Your task to perform on an android device: Go to Yahoo.com Image 0: 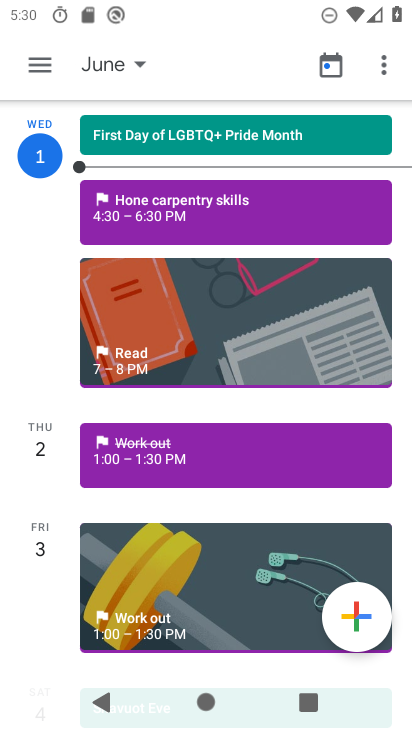
Step 0: press home button
Your task to perform on an android device: Go to Yahoo.com Image 1: 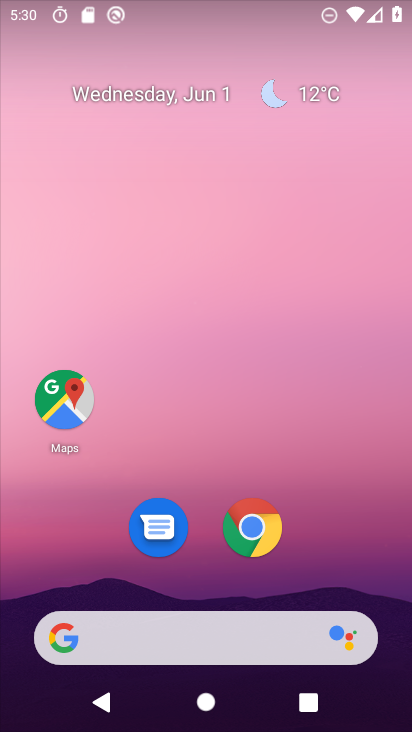
Step 1: click (265, 529)
Your task to perform on an android device: Go to Yahoo.com Image 2: 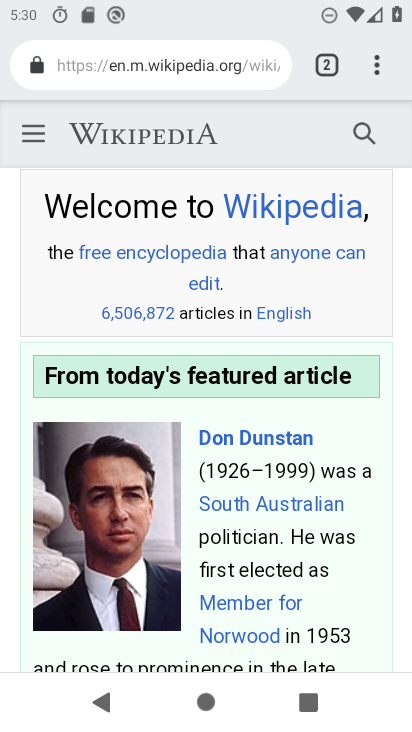
Step 2: click (316, 74)
Your task to perform on an android device: Go to Yahoo.com Image 3: 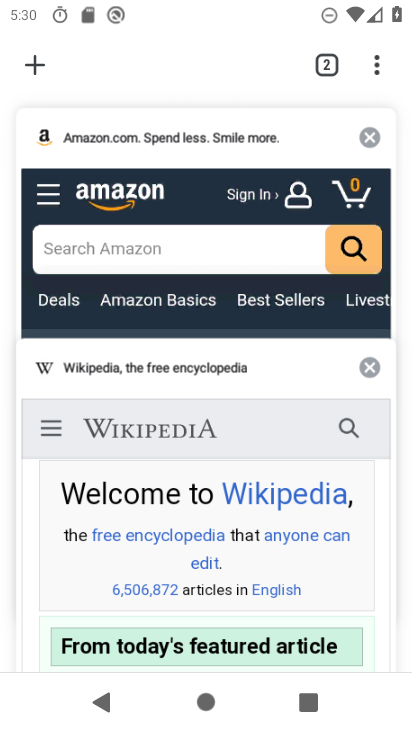
Step 3: click (51, 61)
Your task to perform on an android device: Go to Yahoo.com Image 4: 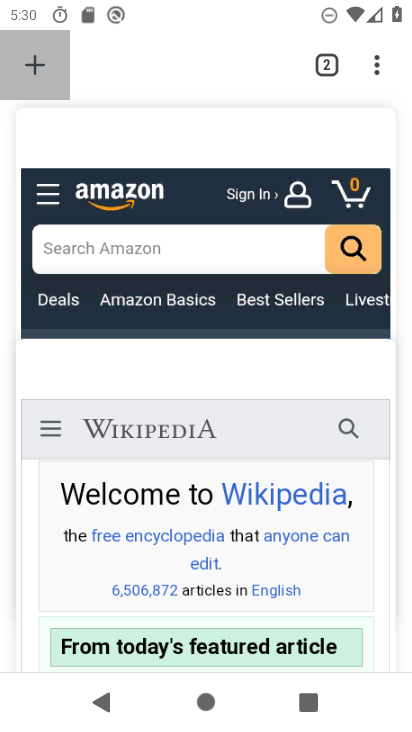
Step 4: click (36, 66)
Your task to perform on an android device: Go to Yahoo.com Image 5: 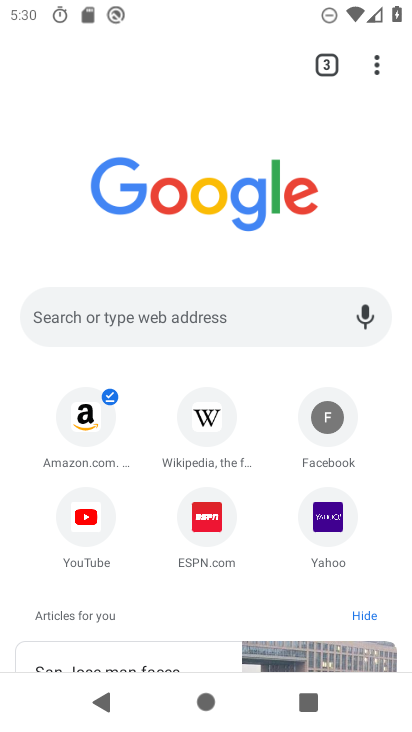
Step 5: click (314, 498)
Your task to perform on an android device: Go to Yahoo.com Image 6: 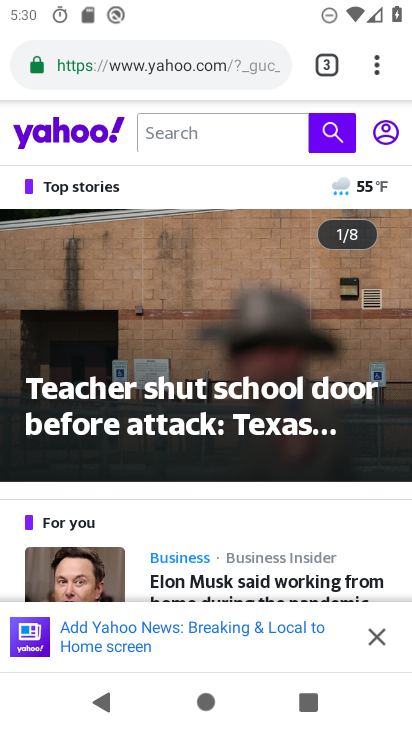
Step 6: task complete